Your task to perform on an android device: turn smart compose on in the gmail app Image 0: 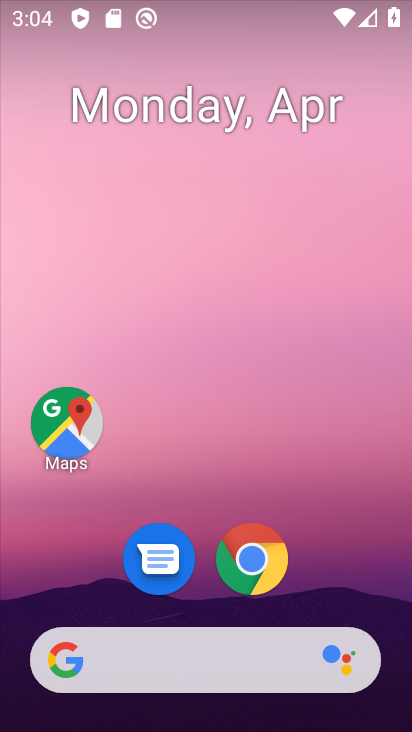
Step 0: drag from (323, 557) to (326, 97)
Your task to perform on an android device: turn smart compose on in the gmail app Image 1: 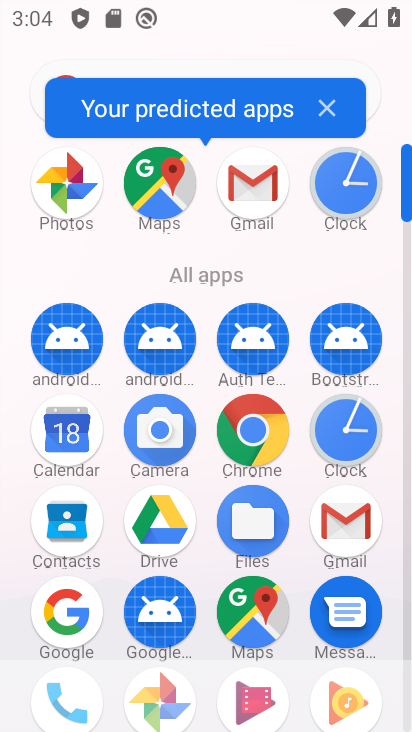
Step 1: click (260, 174)
Your task to perform on an android device: turn smart compose on in the gmail app Image 2: 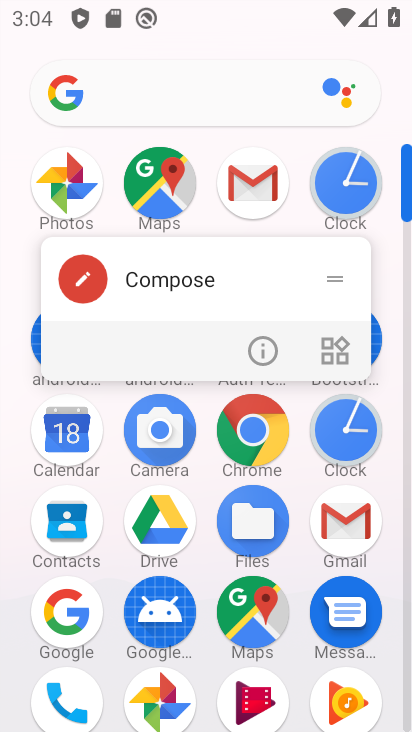
Step 2: click (260, 177)
Your task to perform on an android device: turn smart compose on in the gmail app Image 3: 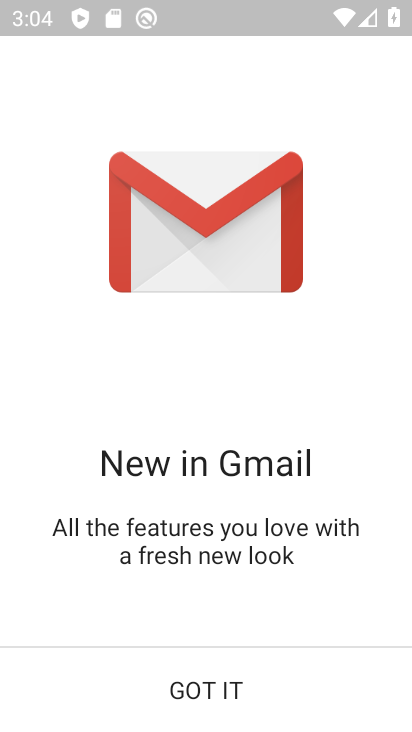
Step 3: click (193, 687)
Your task to perform on an android device: turn smart compose on in the gmail app Image 4: 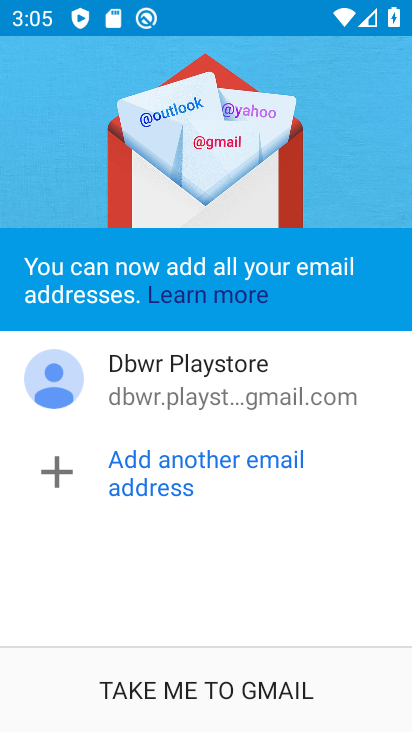
Step 4: click (200, 694)
Your task to perform on an android device: turn smart compose on in the gmail app Image 5: 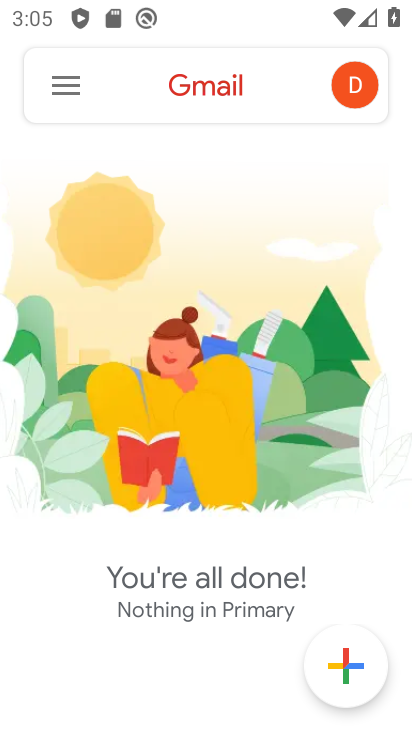
Step 5: click (54, 84)
Your task to perform on an android device: turn smart compose on in the gmail app Image 6: 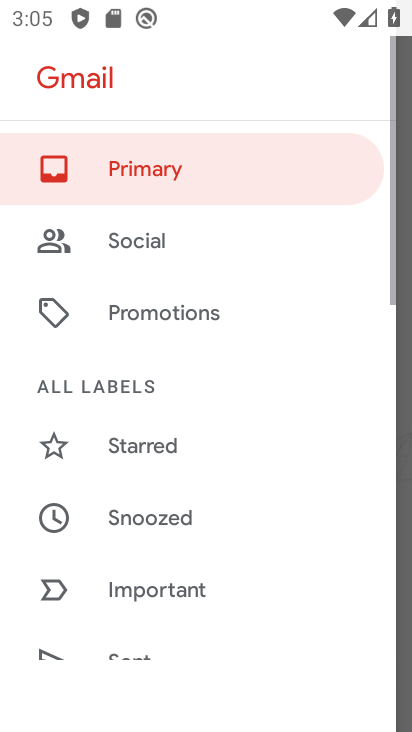
Step 6: drag from (243, 650) to (263, 232)
Your task to perform on an android device: turn smart compose on in the gmail app Image 7: 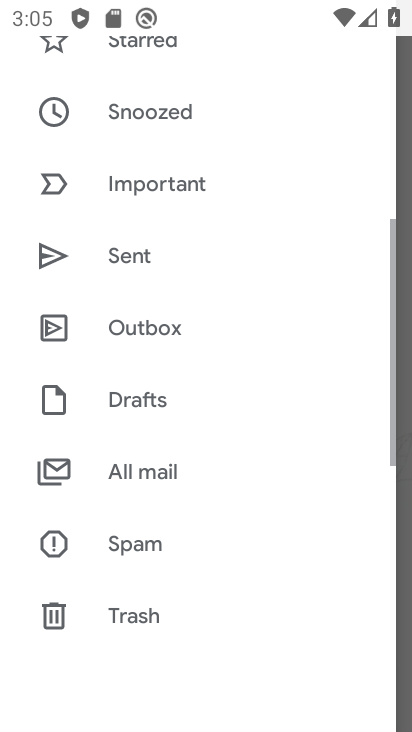
Step 7: drag from (240, 645) to (252, 245)
Your task to perform on an android device: turn smart compose on in the gmail app Image 8: 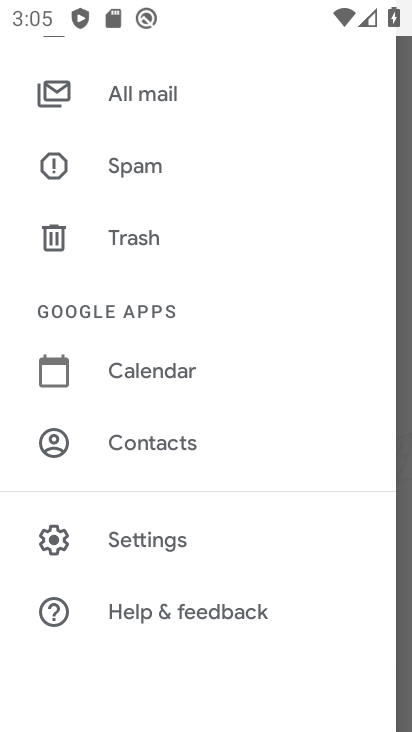
Step 8: click (155, 542)
Your task to perform on an android device: turn smart compose on in the gmail app Image 9: 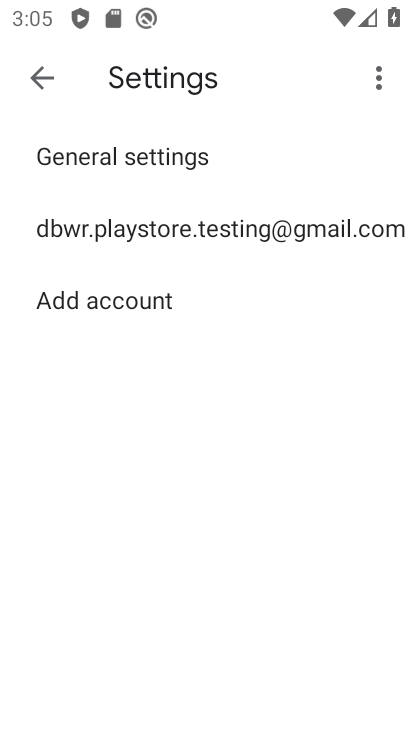
Step 9: click (172, 231)
Your task to perform on an android device: turn smart compose on in the gmail app Image 10: 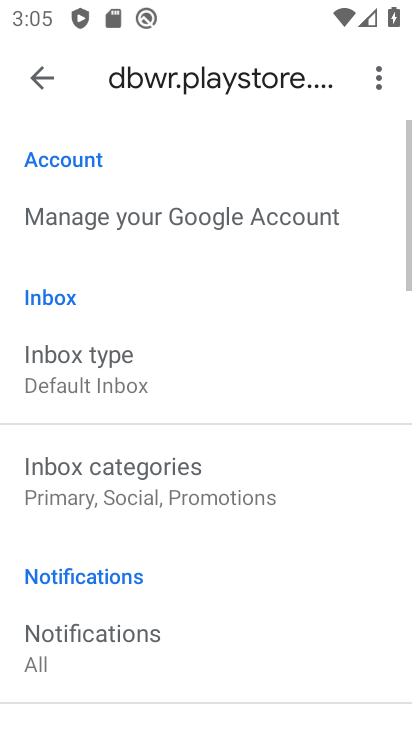
Step 10: task complete